Your task to perform on an android device: Open the web browser Image 0: 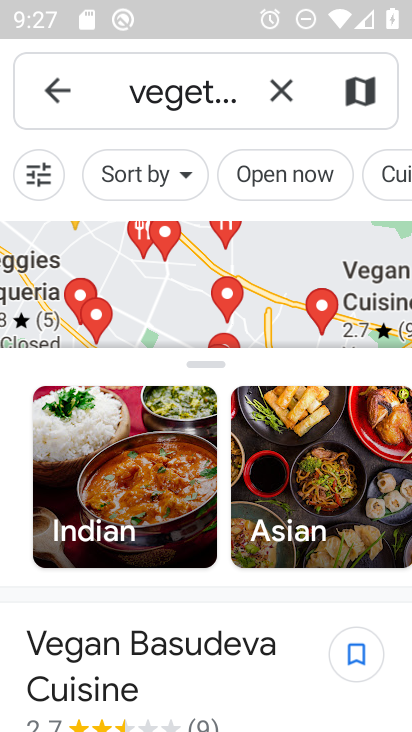
Step 0: press home button
Your task to perform on an android device: Open the web browser Image 1: 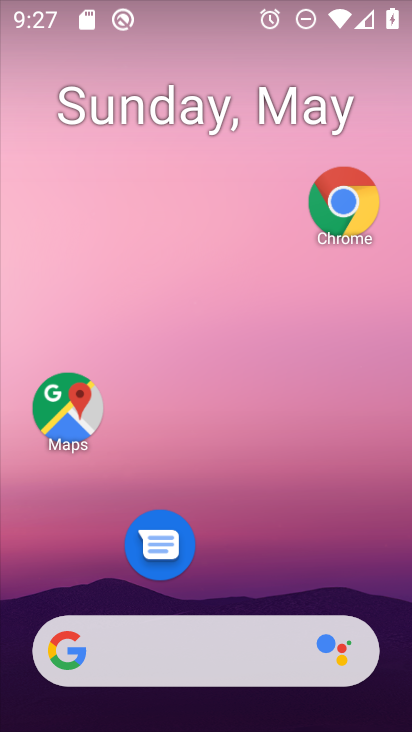
Step 1: drag from (262, 582) to (303, 114)
Your task to perform on an android device: Open the web browser Image 2: 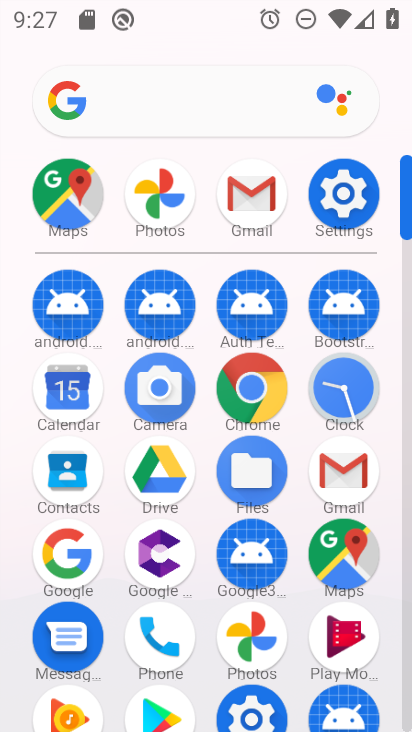
Step 2: click (258, 373)
Your task to perform on an android device: Open the web browser Image 3: 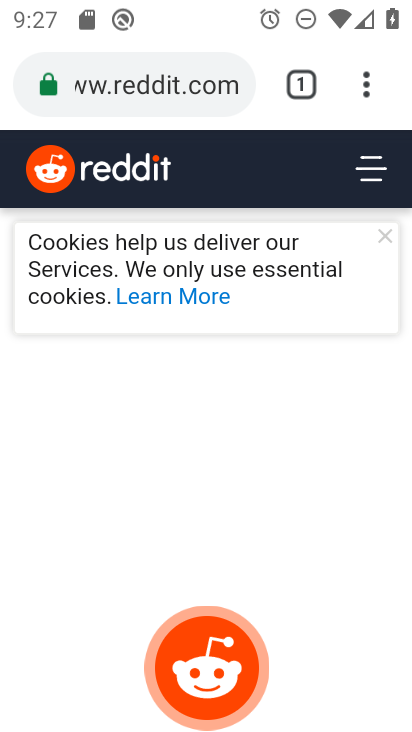
Step 3: task complete